Your task to perform on an android device: What's on my calendar today? Image 0: 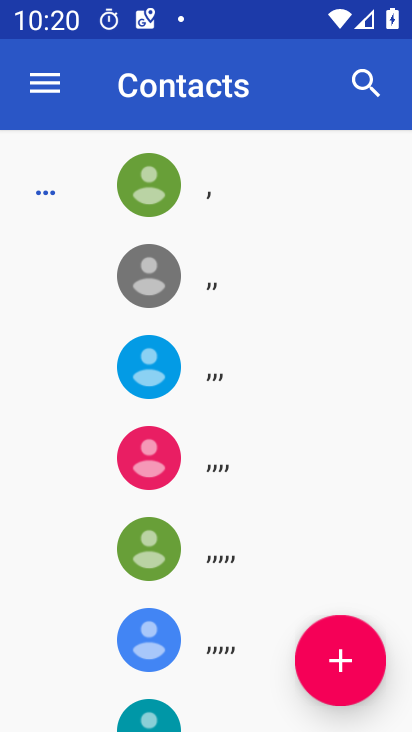
Step 0: press home button
Your task to perform on an android device: What's on my calendar today? Image 1: 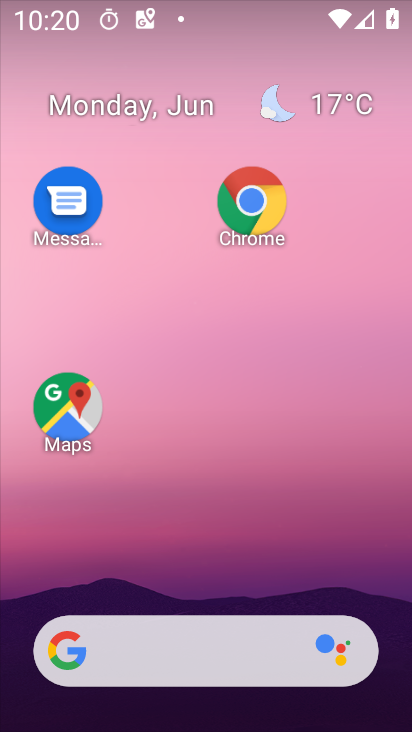
Step 1: click (204, 633)
Your task to perform on an android device: What's on my calendar today? Image 2: 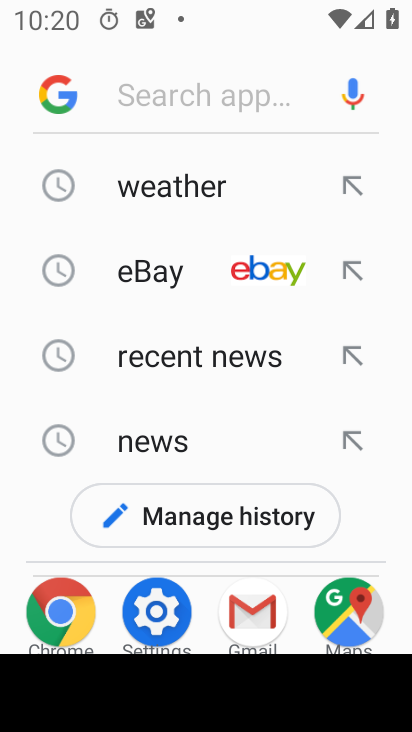
Step 2: press home button
Your task to perform on an android device: What's on my calendar today? Image 3: 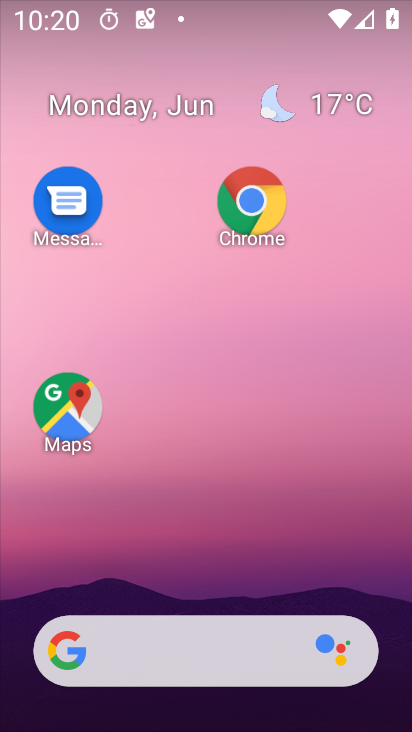
Step 3: drag from (200, 586) to (141, 6)
Your task to perform on an android device: What's on my calendar today? Image 4: 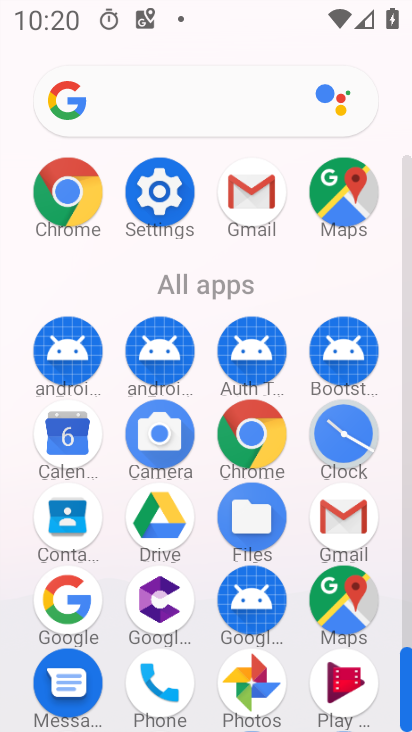
Step 4: click (69, 440)
Your task to perform on an android device: What's on my calendar today? Image 5: 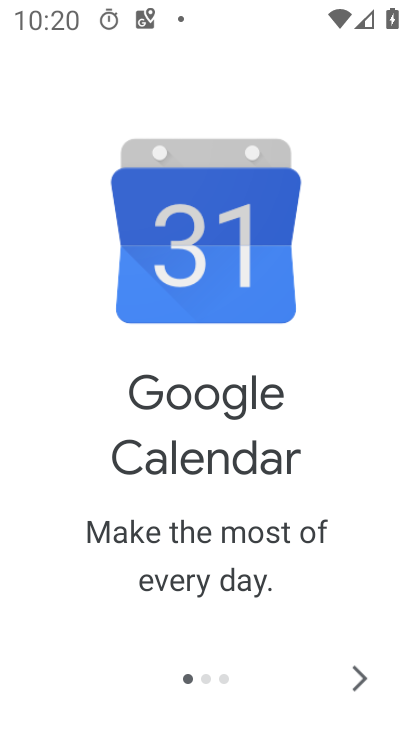
Step 5: click (345, 680)
Your task to perform on an android device: What's on my calendar today? Image 6: 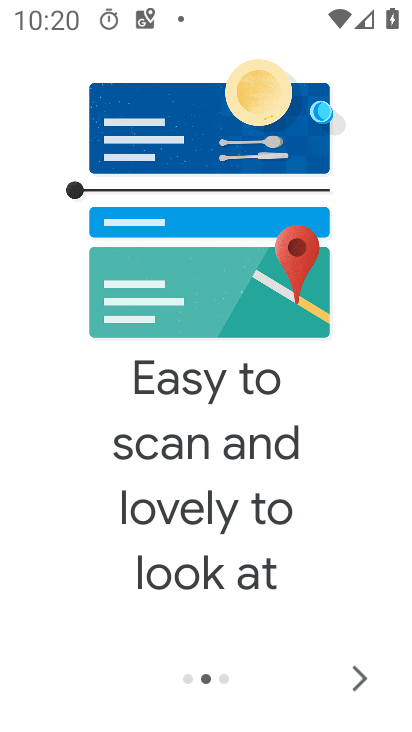
Step 6: click (345, 680)
Your task to perform on an android device: What's on my calendar today? Image 7: 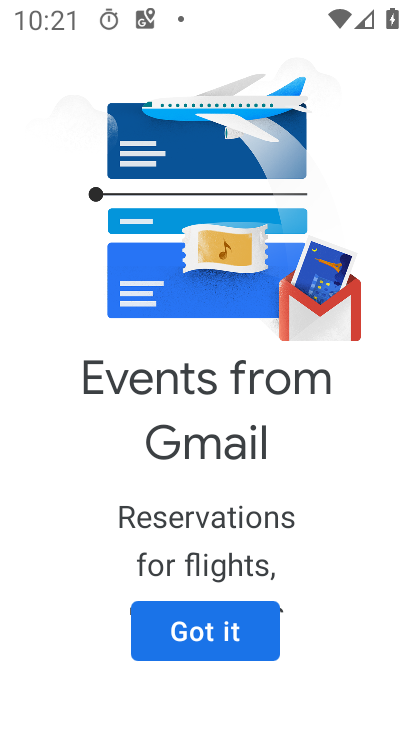
Step 7: click (257, 639)
Your task to perform on an android device: What's on my calendar today? Image 8: 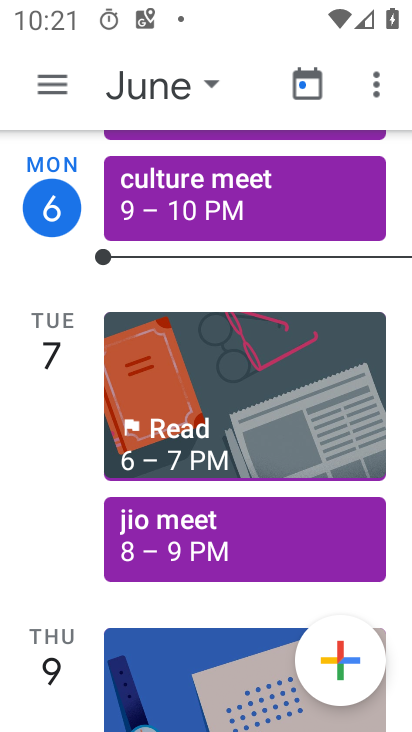
Step 8: click (26, 198)
Your task to perform on an android device: What's on my calendar today? Image 9: 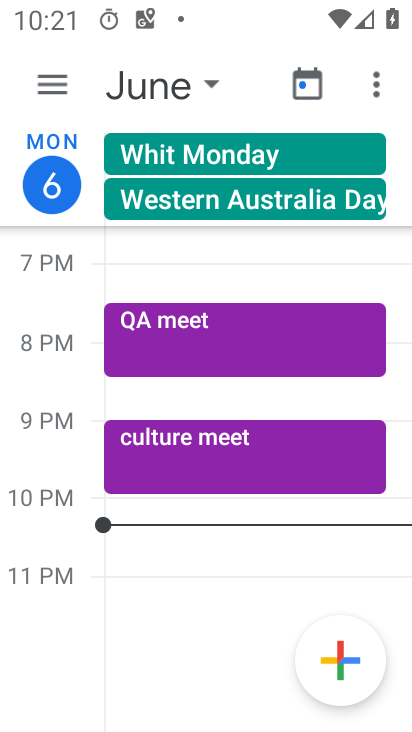
Step 9: task complete